Your task to perform on an android device: change the clock display to digital Image 0: 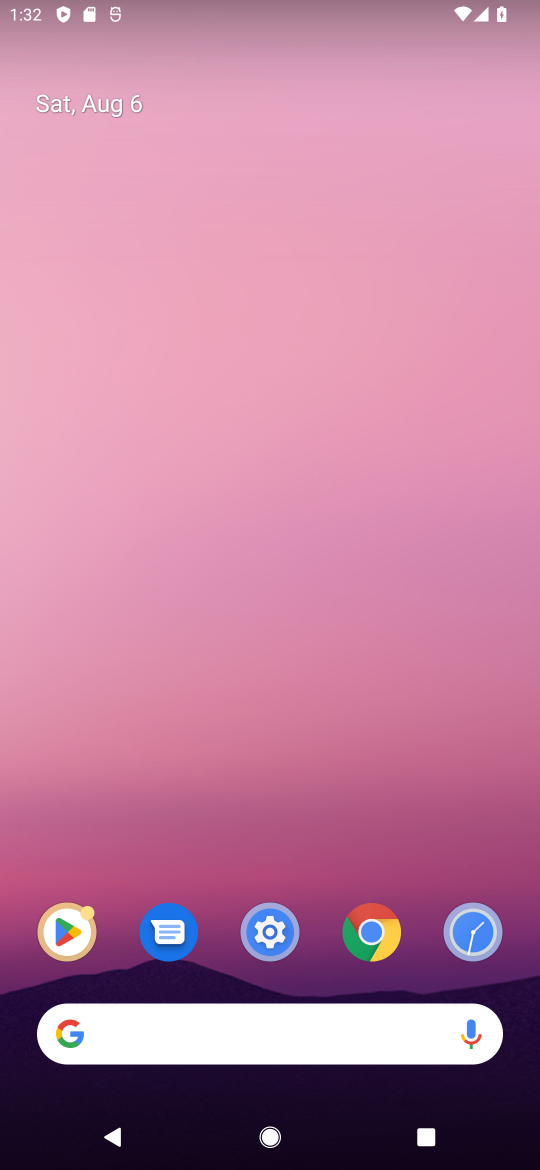
Step 0: drag from (245, 738) to (361, 40)
Your task to perform on an android device: change the clock display to digital Image 1: 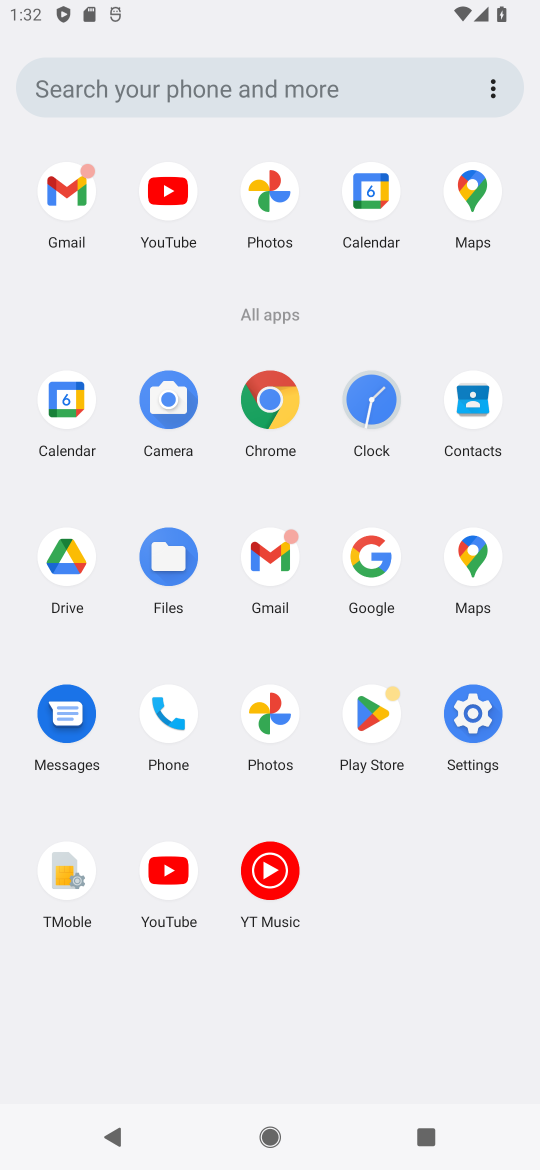
Step 1: click (478, 710)
Your task to perform on an android device: change the clock display to digital Image 2: 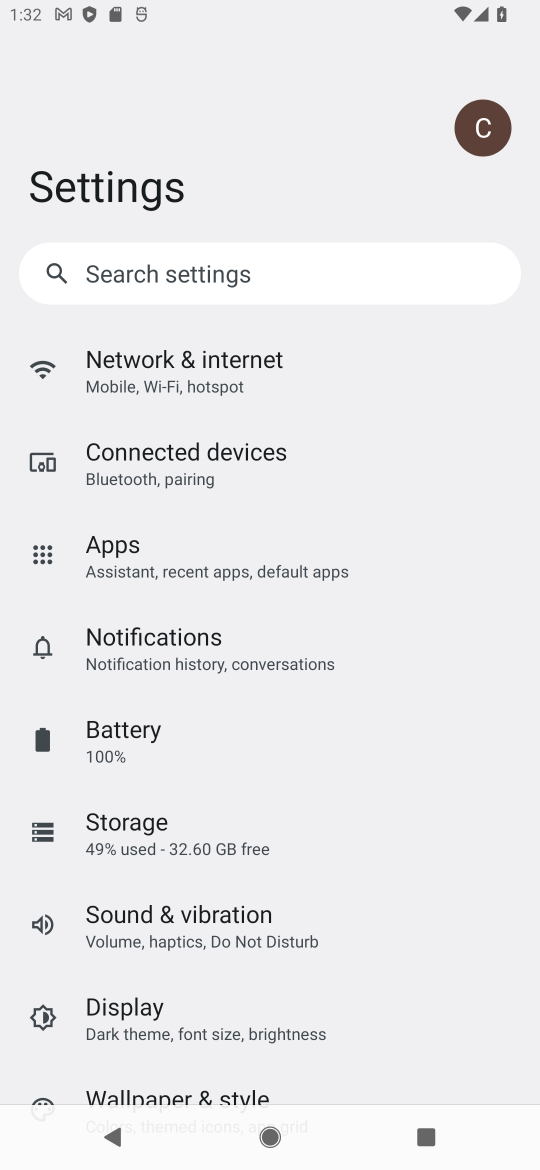
Step 2: drag from (301, 999) to (304, 464)
Your task to perform on an android device: change the clock display to digital Image 3: 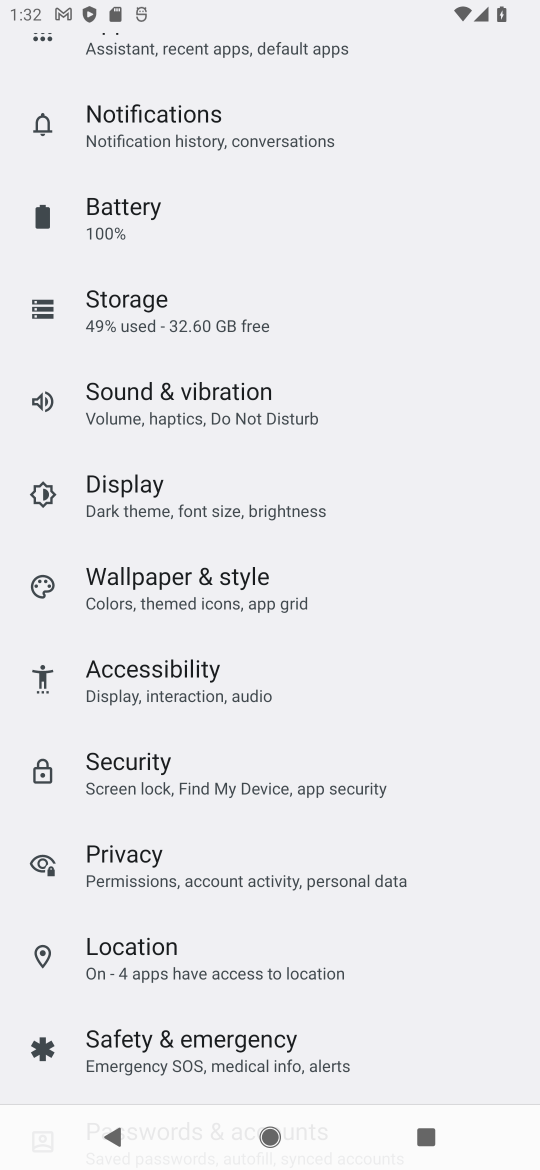
Step 3: press home button
Your task to perform on an android device: change the clock display to digital Image 4: 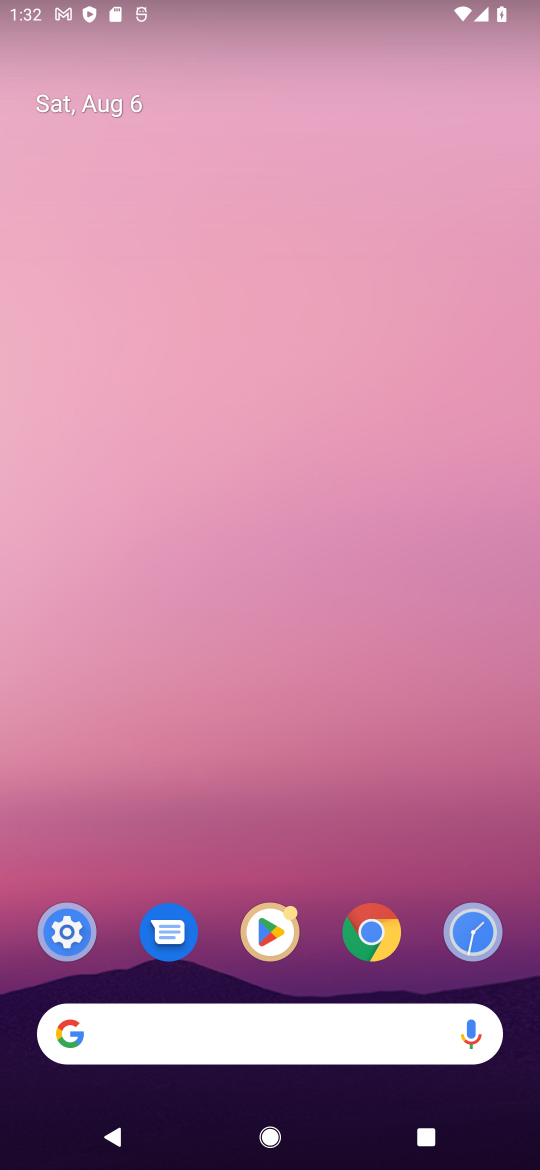
Step 4: drag from (214, 788) to (325, 29)
Your task to perform on an android device: change the clock display to digital Image 5: 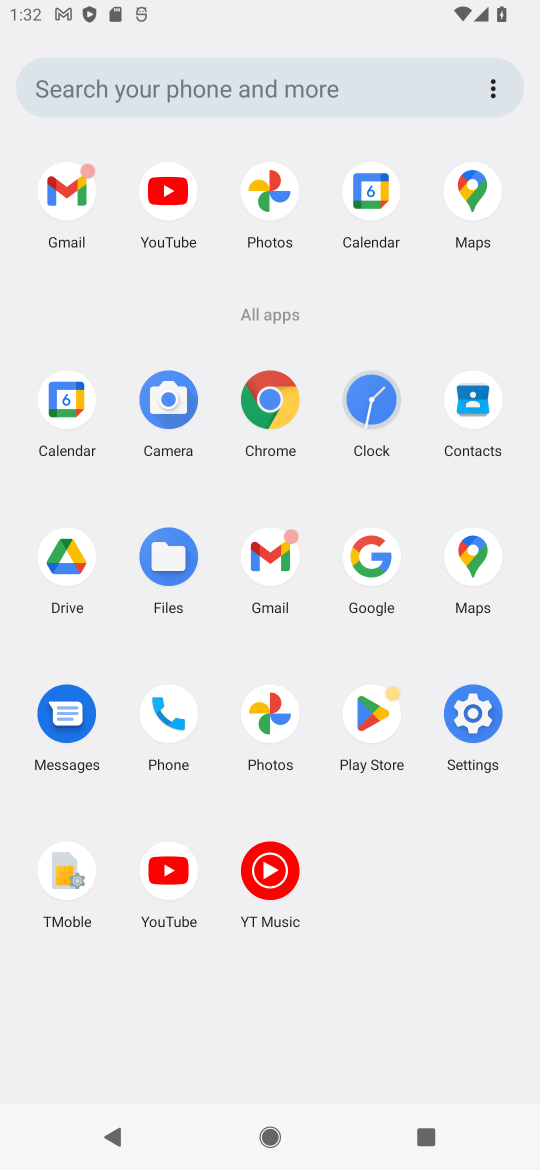
Step 5: click (377, 378)
Your task to perform on an android device: change the clock display to digital Image 6: 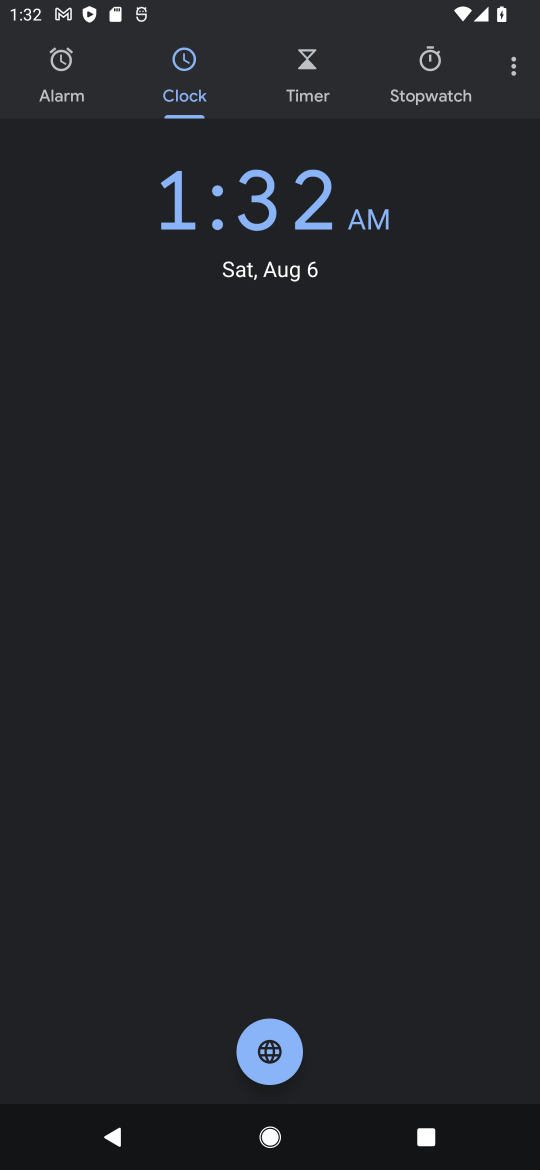
Step 6: click (519, 71)
Your task to perform on an android device: change the clock display to digital Image 7: 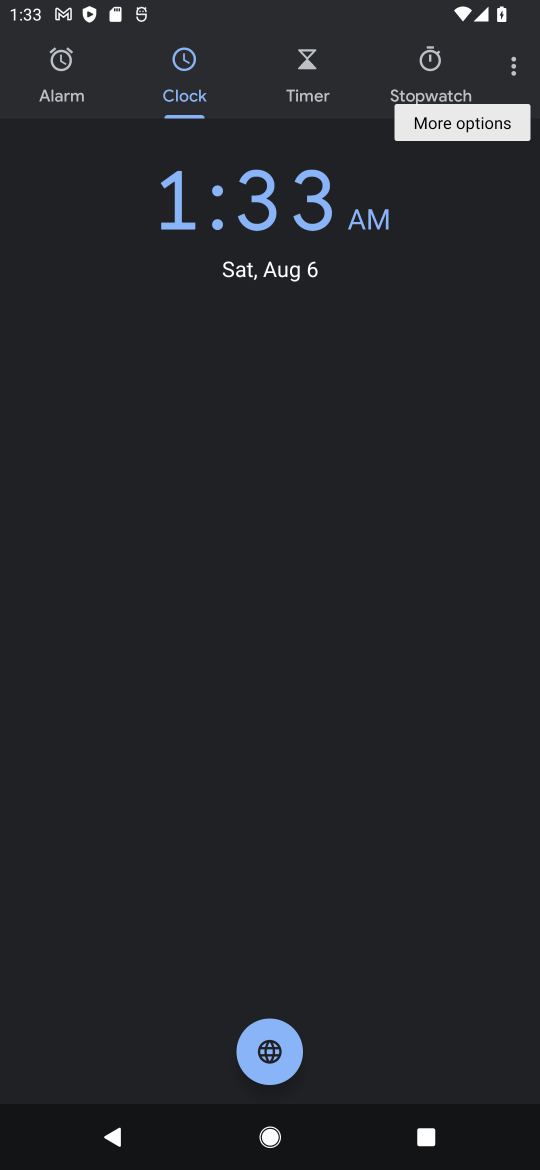
Step 7: click (519, 71)
Your task to perform on an android device: change the clock display to digital Image 8: 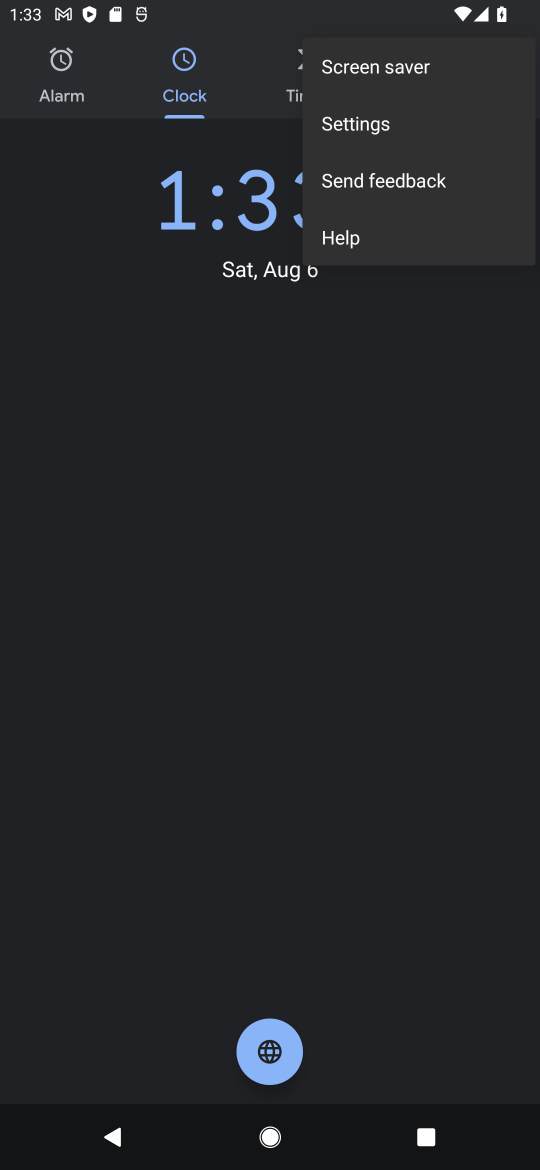
Step 8: click (375, 128)
Your task to perform on an android device: change the clock display to digital Image 9: 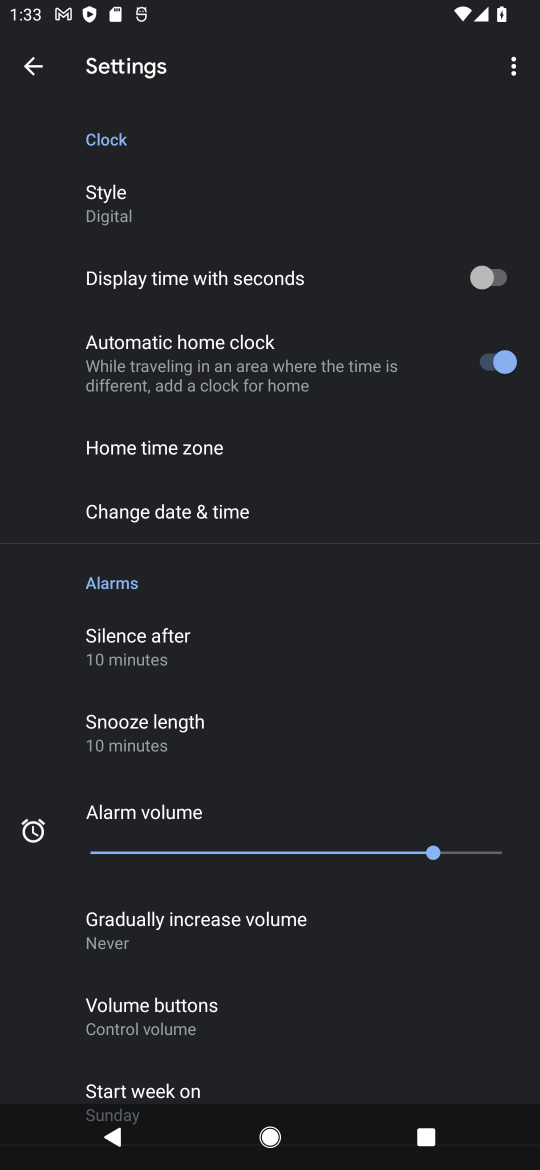
Step 9: click (112, 209)
Your task to perform on an android device: change the clock display to digital Image 10: 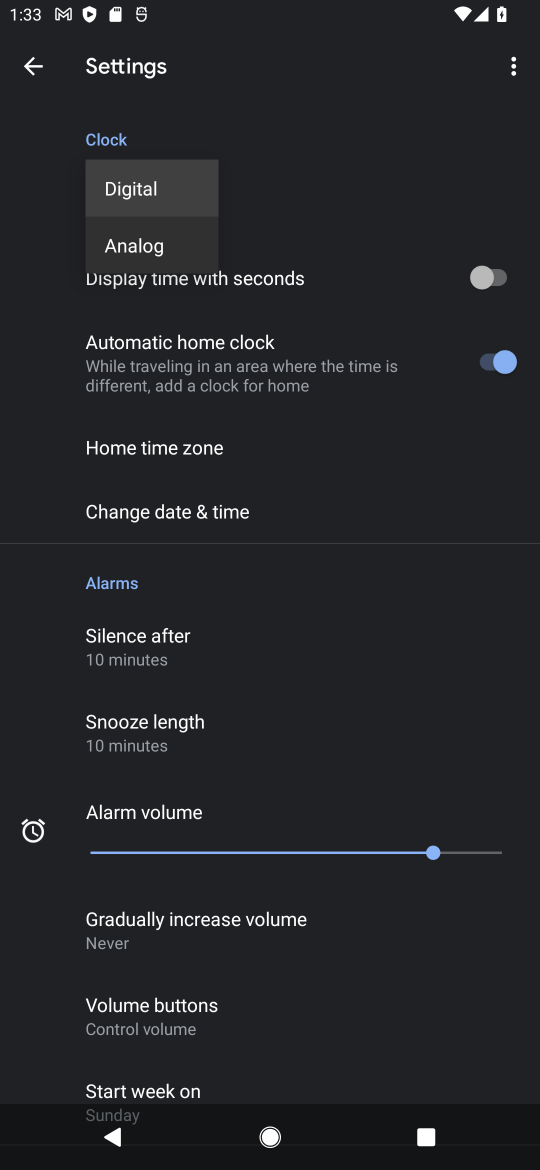
Step 10: click (154, 203)
Your task to perform on an android device: change the clock display to digital Image 11: 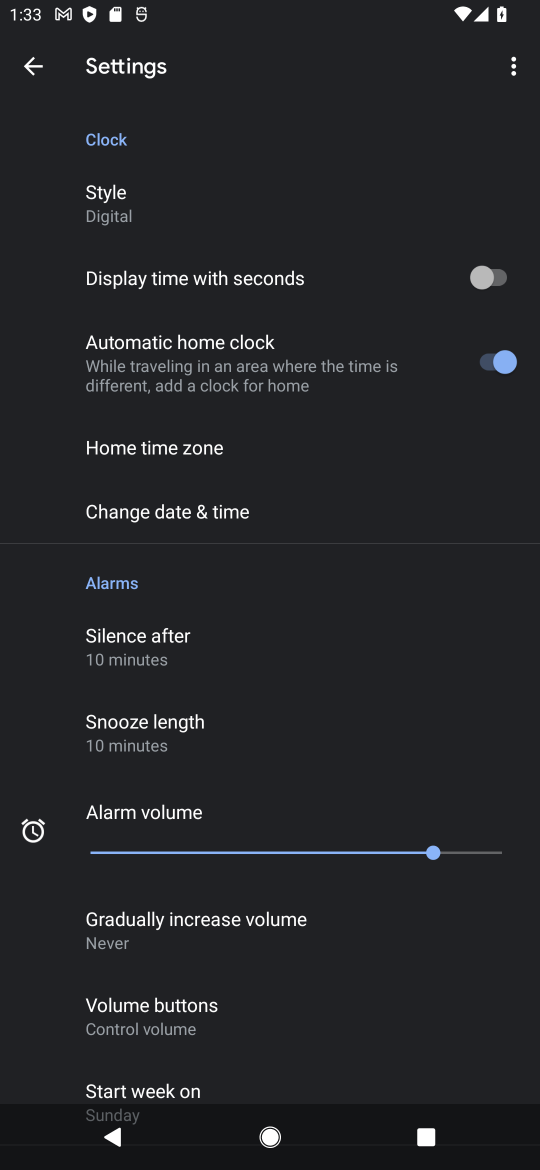
Step 11: task complete